Your task to perform on an android device: What's the weather going to be this weekend? Image 0: 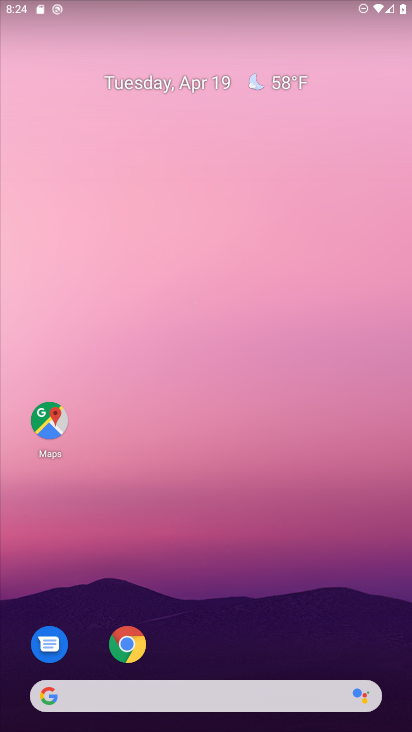
Step 0: drag from (184, 557) to (310, 7)
Your task to perform on an android device: What's the weather going to be this weekend? Image 1: 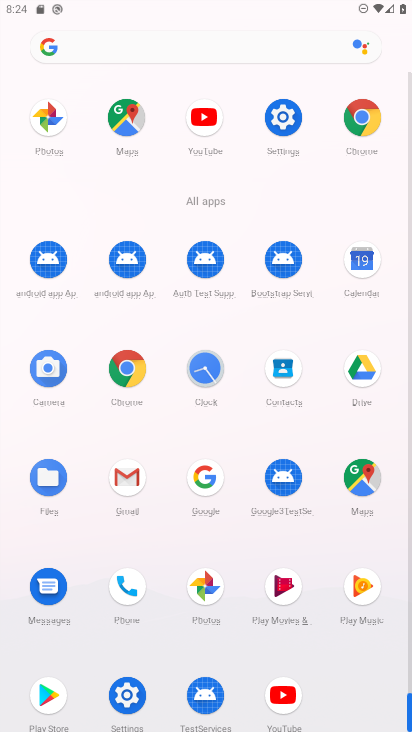
Step 1: click (110, 465)
Your task to perform on an android device: What's the weather going to be this weekend? Image 2: 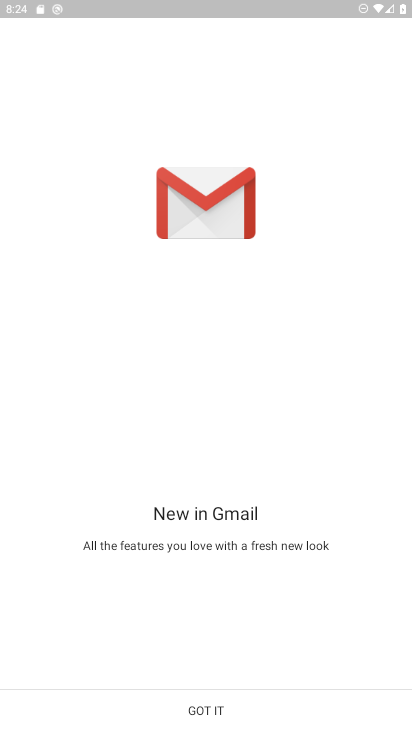
Step 2: press back button
Your task to perform on an android device: What's the weather going to be this weekend? Image 3: 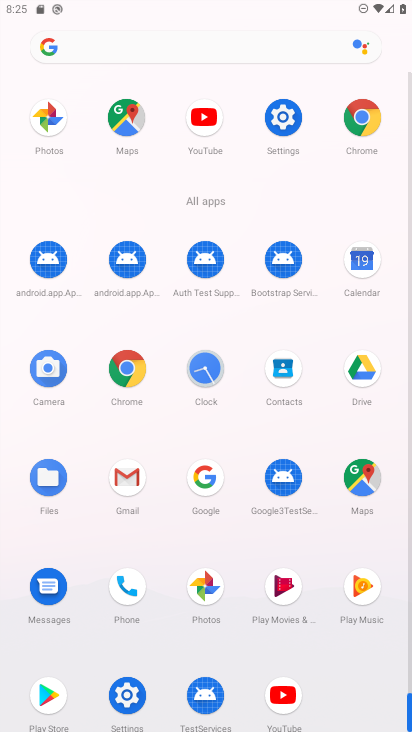
Step 3: click (128, 370)
Your task to perform on an android device: What's the weather going to be this weekend? Image 4: 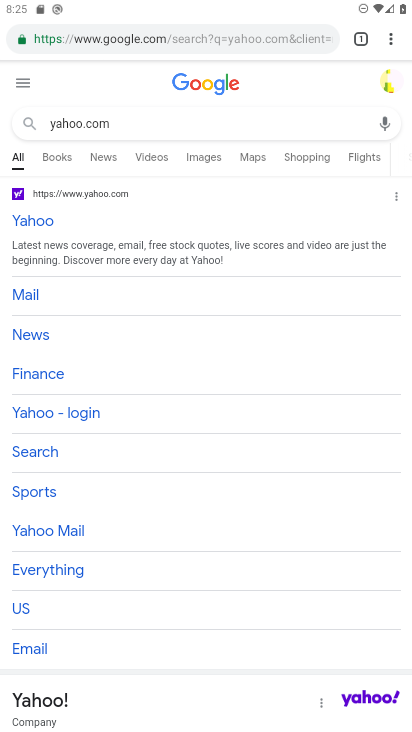
Step 4: click (161, 123)
Your task to perform on an android device: What's the weather going to be this weekend? Image 5: 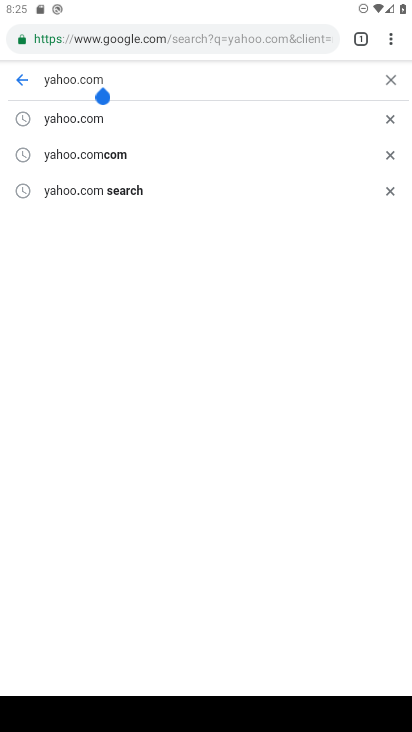
Step 5: click (390, 83)
Your task to perform on an android device: What's the weather going to be this weekend? Image 6: 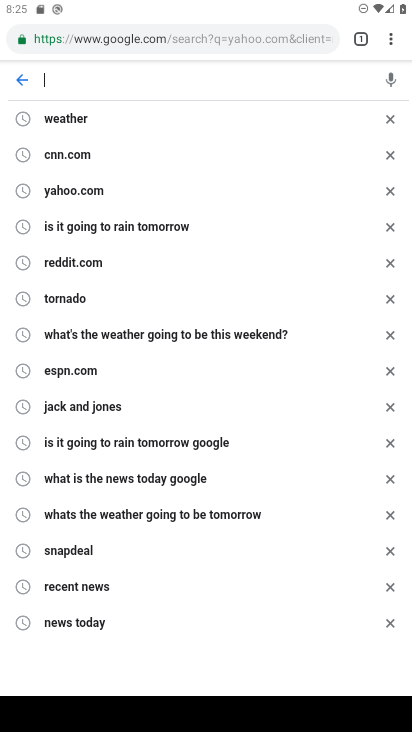
Step 6: type "what's the weather going to be this weekend?"
Your task to perform on an android device: What's the weather going to be this weekend? Image 7: 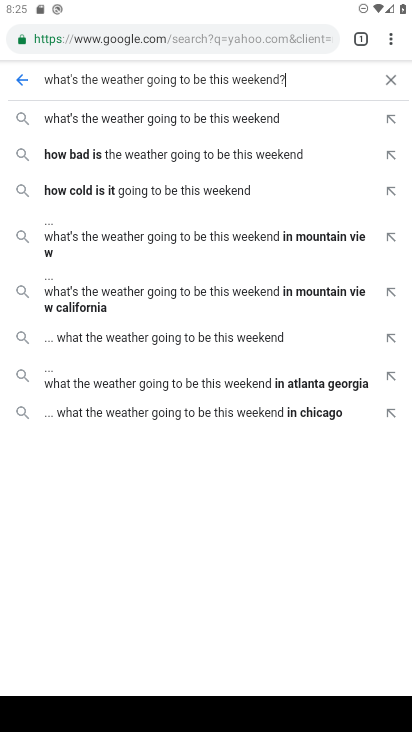
Step 7: click (206, 116)
Your task to perform on an android device: What's the weather going to be this weekend? Image 8: 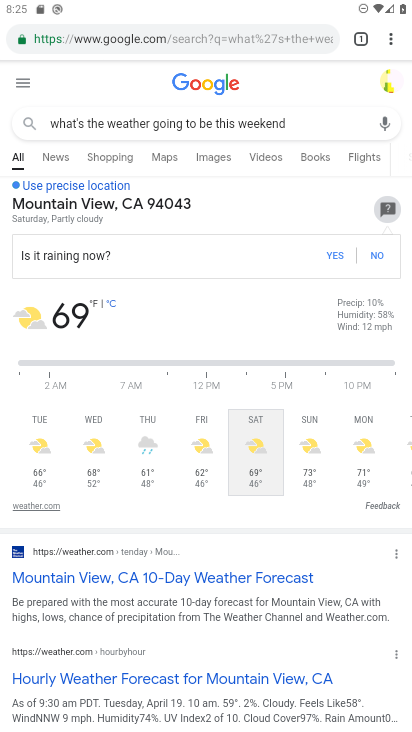
Step 8: task complete